Your task to perform on an android device: Turn on the flashlight Image 0: 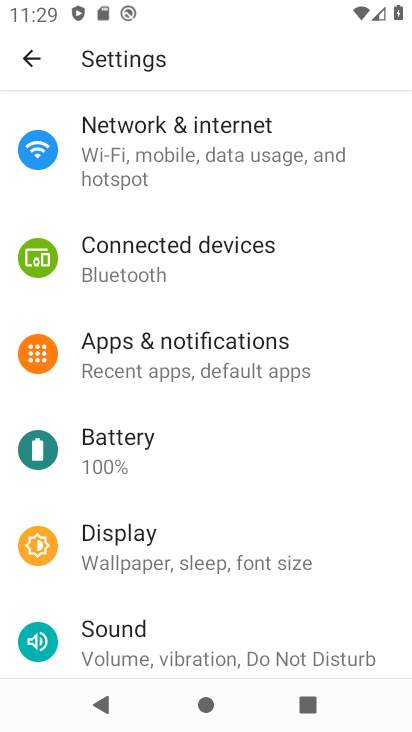
Step 0: drag from (313, 162) to (275, 469)
Your task to perform on an android device: Turn on the flashlight Image 1: 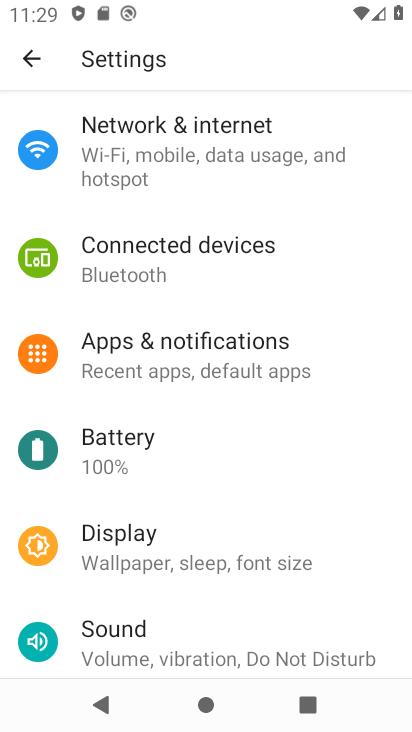
Step 1: click (215, 168)
Your task to perform on an android device: Turn on the flashlight Image 2: 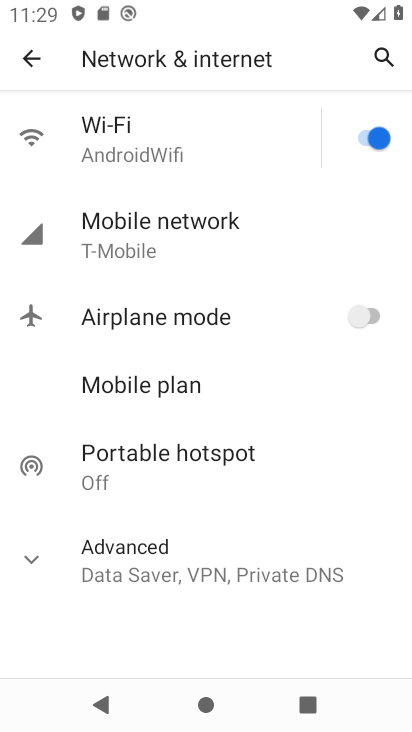
Step 2: click (35, 547)
Your task to perform on an android device: Turn on the flashlight Image 3: 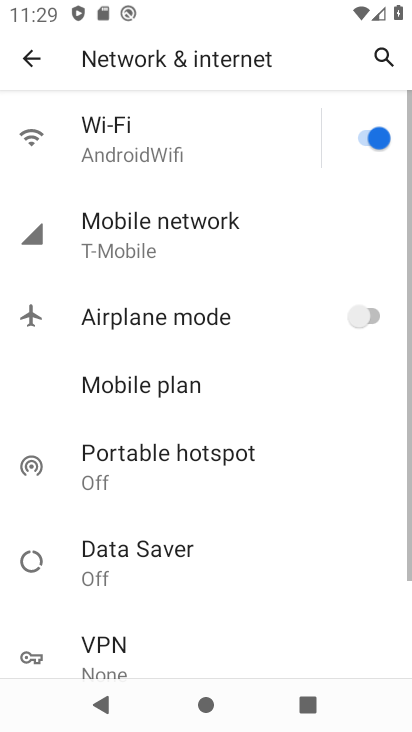
Step 3: drag from (237, 543) to (234, 193)
Your task to perform on an android device: Turn on the flashlight Image 4: 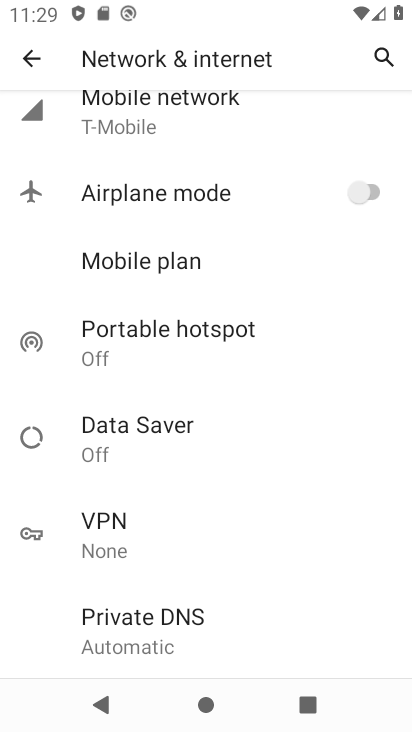
Step 4: drag from (211, 534) to (217, 231)
Your task to perform on an android device: Turn on the flashlight Image 5: 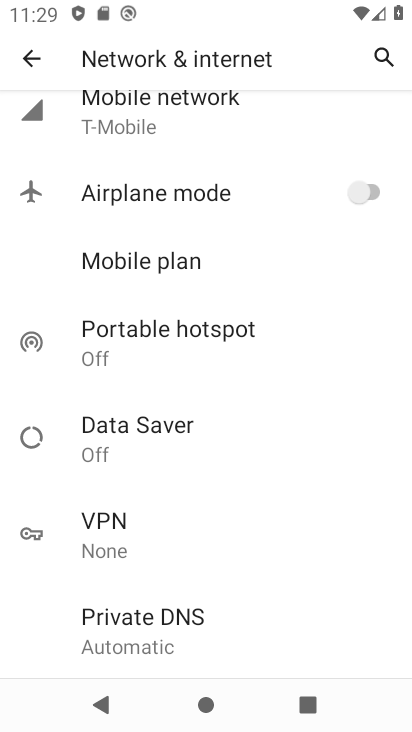
Step 5: click (26, 60)
Your task to perform on an android device: Turn on the flashlight Image 6: 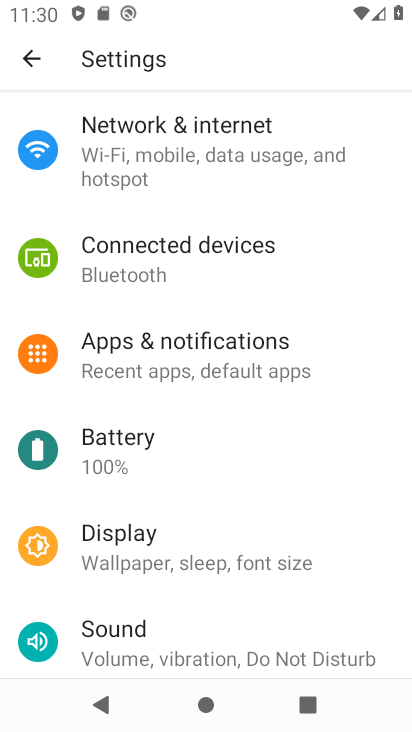
Step 6: task complete